Your task to perform on an android device: delete a single message in the gmail app Image 0: 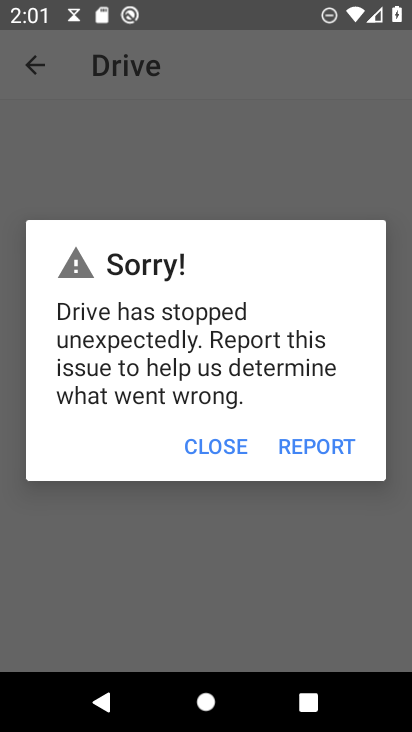
Step 0: press home button
Your task to perform on an android device: delete a single message in the gmail app Image 1: 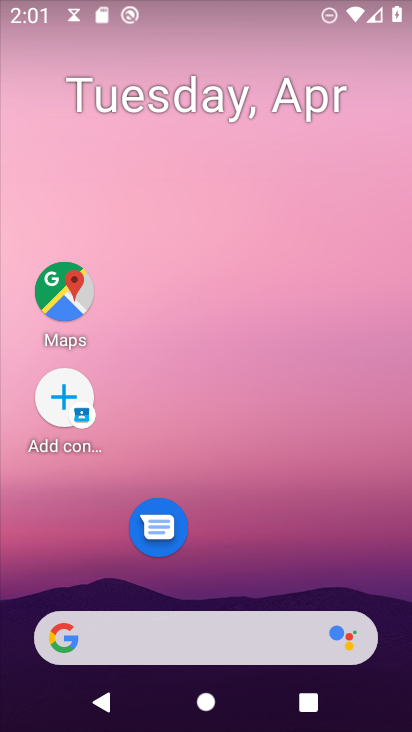
Step 1: drag from (256, 546) to (223, 132)
Your task to perform on an android device: delete a single message in the gmail app Image 2: 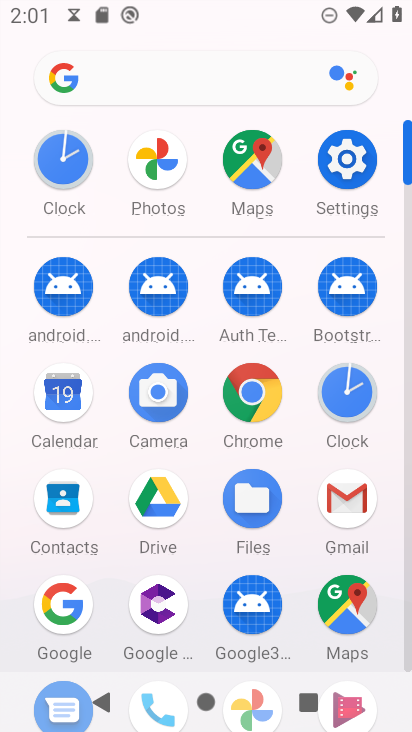
Step 2: click (348, 497)
Your task to perform on an android device: delete a single message in the gmail app Image 3: 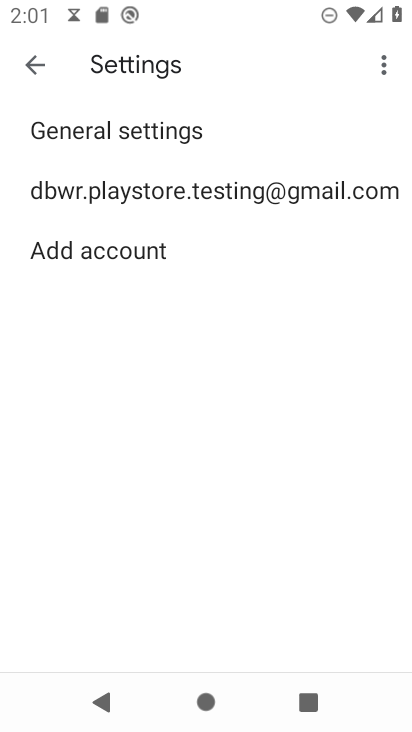
Step 3: press back button
Your task to perform on an android device: delete a single message in the gmail app Image 4: 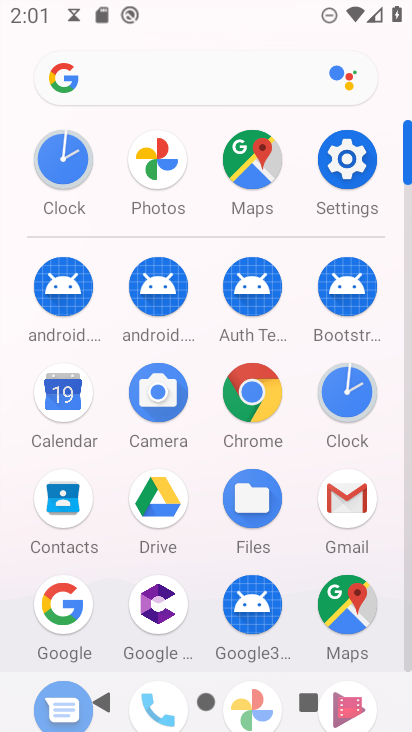
Step 4: click (339, 503)
Your task to perform on an android device: delete a single message in the gmail app Image 5: 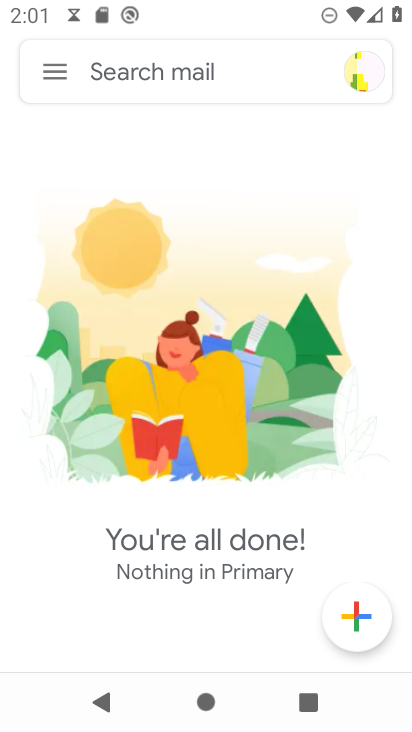
Step 5: click (52, 78)
Your task to perform on an android device: delete a single message in the gmail app Image 6: 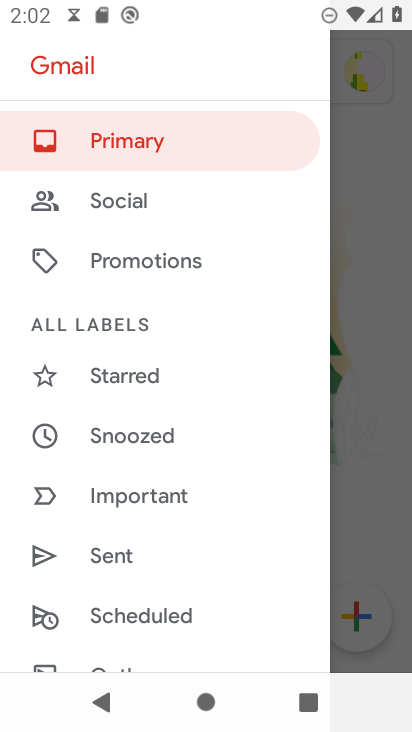
Step 6: drag from (128, 505) to (137, 433)
Your task to perform on an android device: delete a single message in the gmail app Image 7: 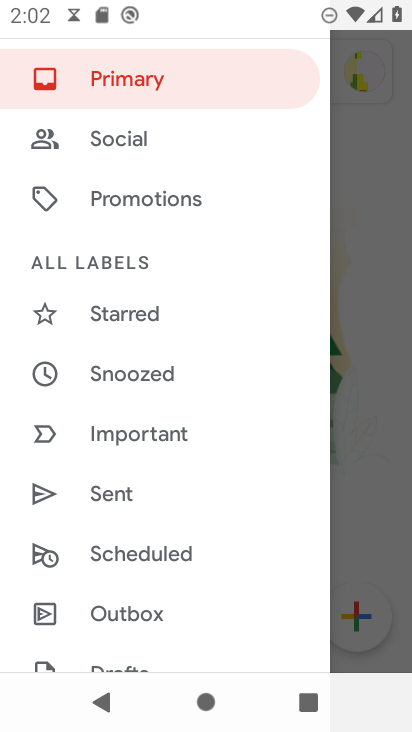
Step 7: drag from (128, 503) to (143, 433)
Your task to perform on an android device: delete a single message in the gmail app Image 8: 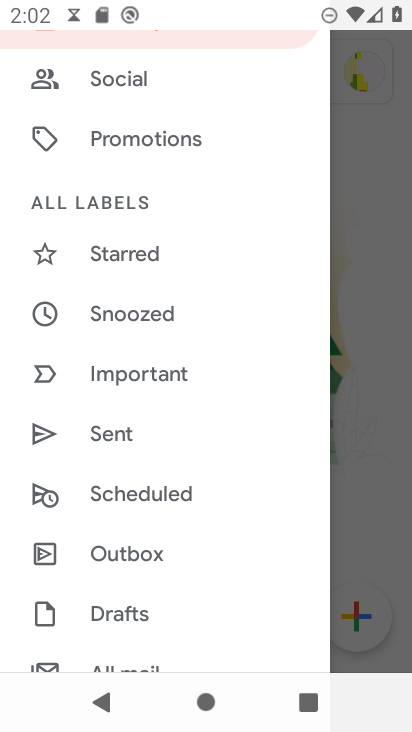
Step 8: drag from (125, 505) to (165, 423)
Your task to perform on an android device: delete a single message in the gmail app Image 9: 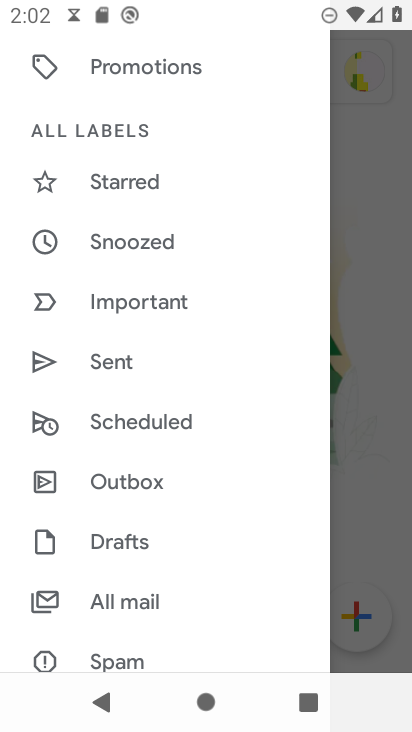
Step 9: drag from (137, 530) to (155, 462)
Your task to perform on an android device: delete a single message in the gmail app Image 10: 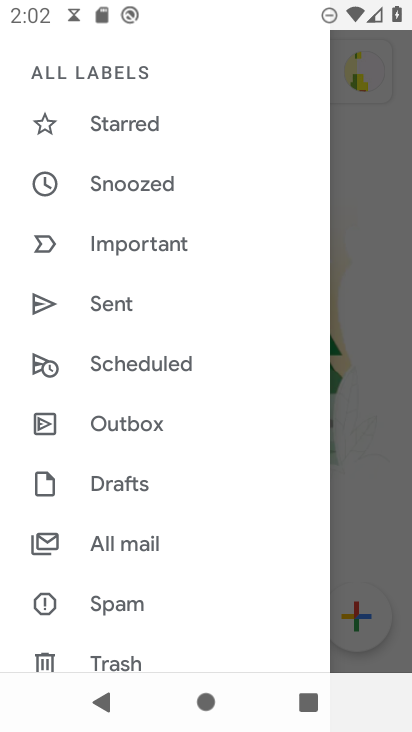
Step 10: click (122, 539)
Your task to perform on an android device: delete a single message in the gmail app Image 11: 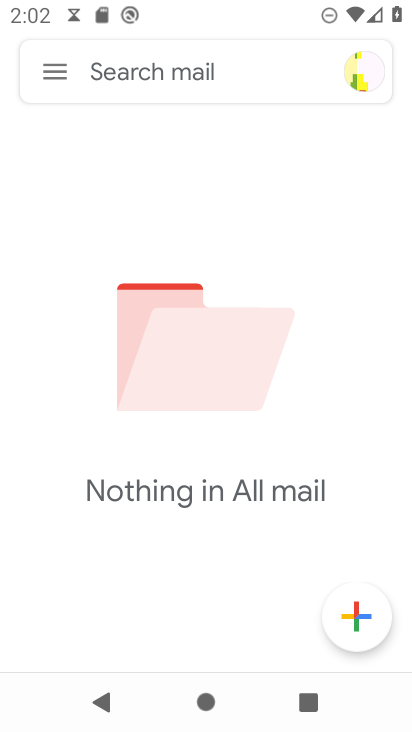
Step 11: task complete